Your task to perform on an android device: turn on translation in the chrome app Image 0: 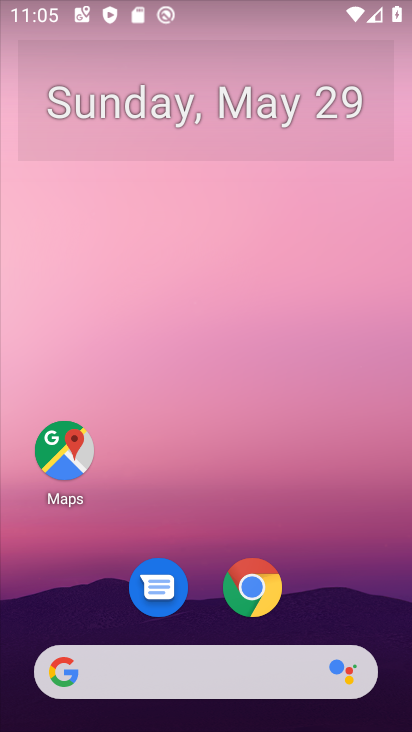
Step 0: click (254, 586)
Your task to perform on an android device: turn on translation in the chrome app Image 1: 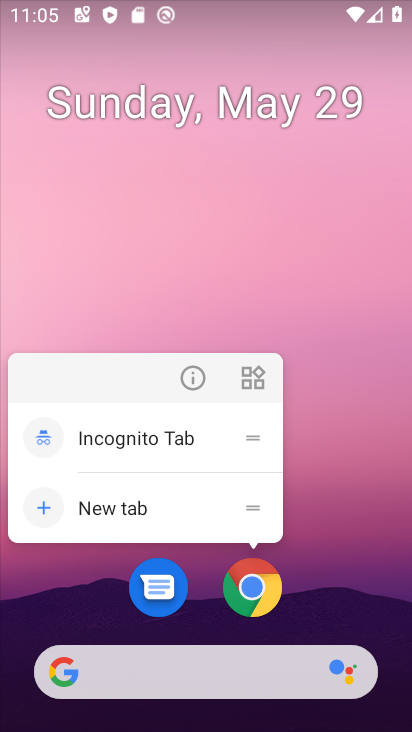
Step 1: click (256, 594)
Your task to perform on an android device: turn on translation in the chrome app Image 2: 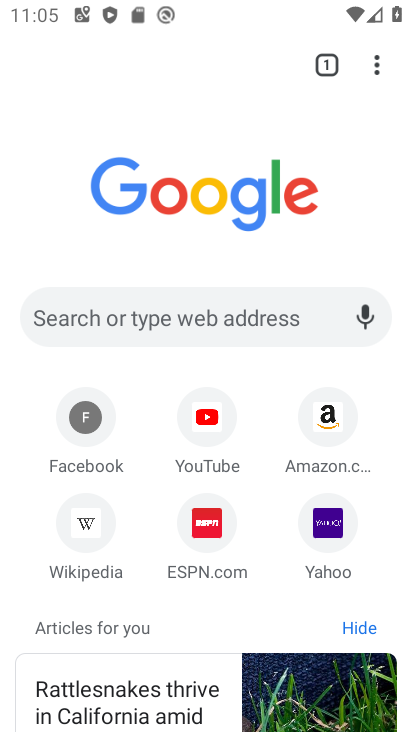
Step 2: drag from (379, 60) to (188, 542)
Your task to perform on an android device: turn on translation in the chrome app Image 3: 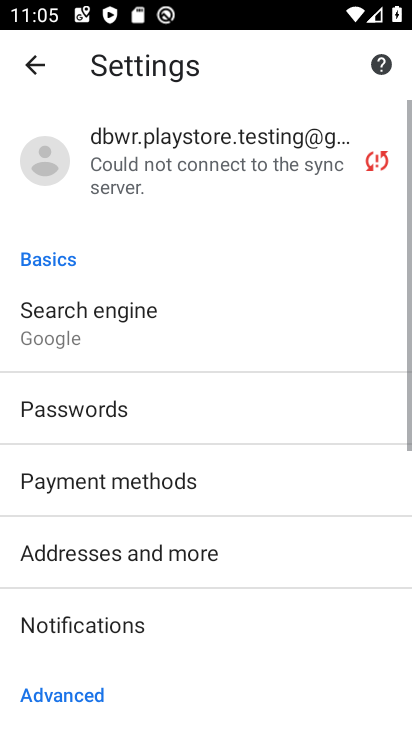
Step 3: drag from (189, 542) to (289, 63)
Your task to perform on an android device: turn on translation in the chrome app Image 4: 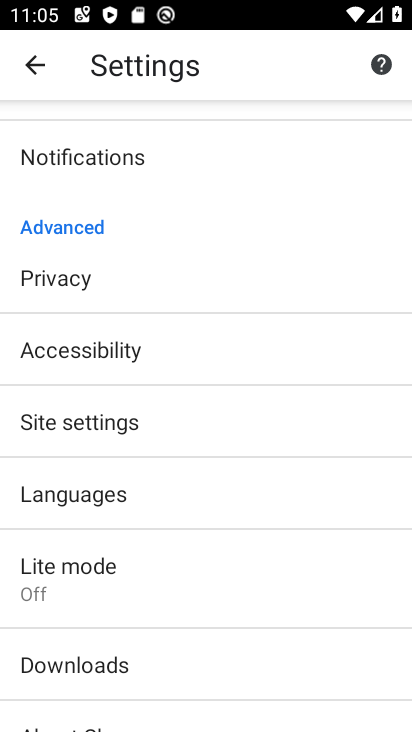
Step 4: click (224, 504)
Your task to perform on an android device: turn on translation in the chrome app Image 5: 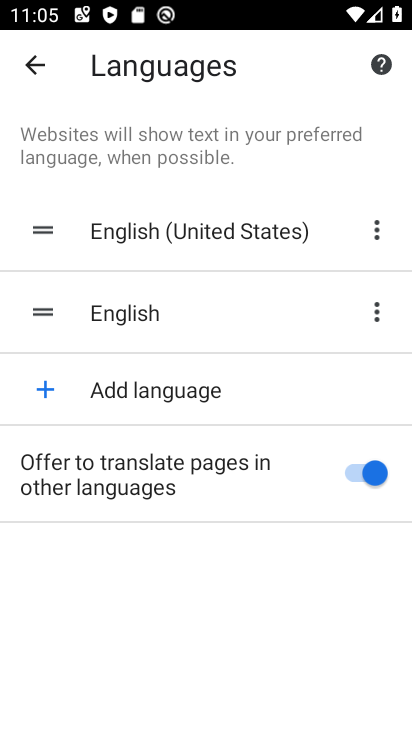
Step 5: task complete